Your task to perform on an android device: Open Chrome and go to the settings page Image 0: 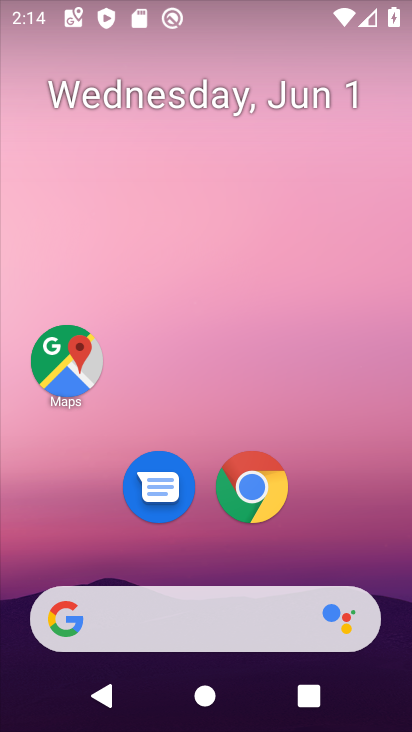
Step 0: drag from (363, 545) to (369, 135)
Your task to perform on an android device: Open Chrome and go to the settings page Image 1: 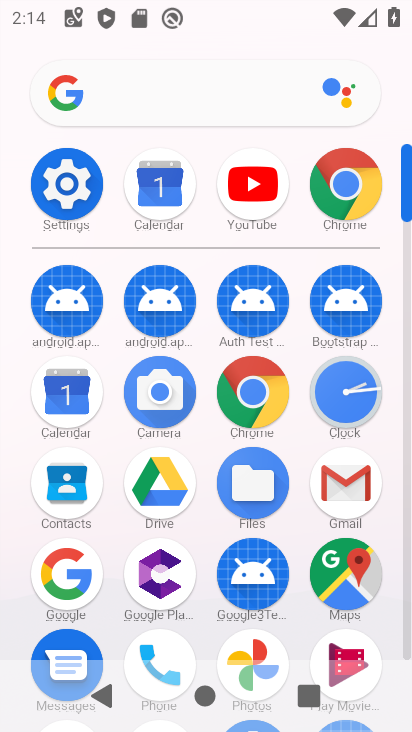
Step 1: click (265, 406)
Your task to perform on an android device: Open Chrome and go to the settings page Image 2: 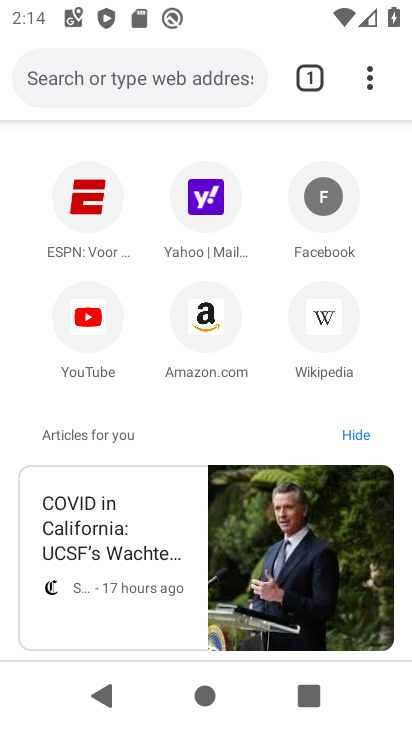
Step 2: click (370, 95)
Your task to perform on an android device: Open Chrome and go to the settings page Image 3: 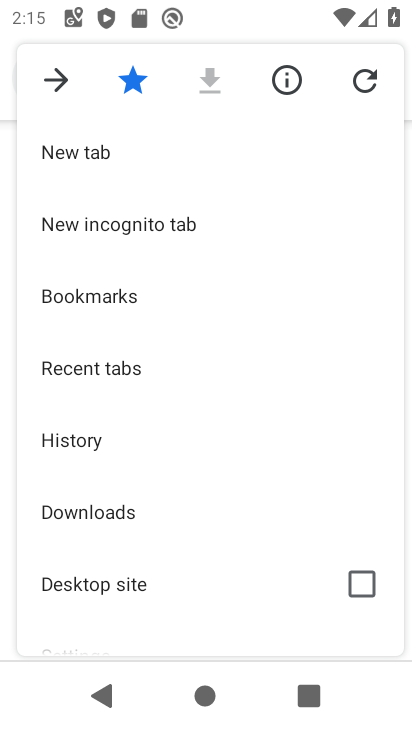
Step 3: drag from (275, 426) to (277, 300)
Your task to perform on an android device: Open Chrome and go to the settings page Image 4: 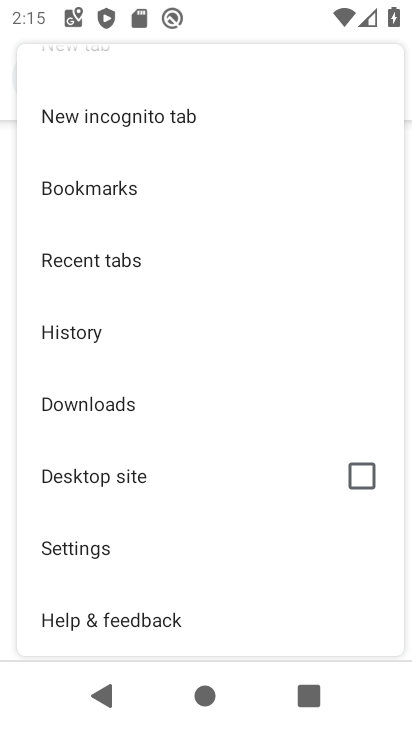
Step 4: drag from (247, 456) to (247, 342)
Your task to perform on an android device: Open Chrome and go to the settings page Image 5: 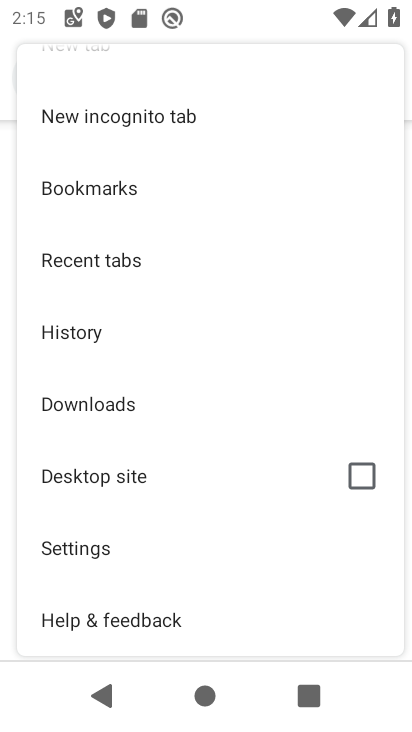
Step 5: click (99, 553)
Your task to perform on an android device: Open Chrome and go to the settings page Image 6: 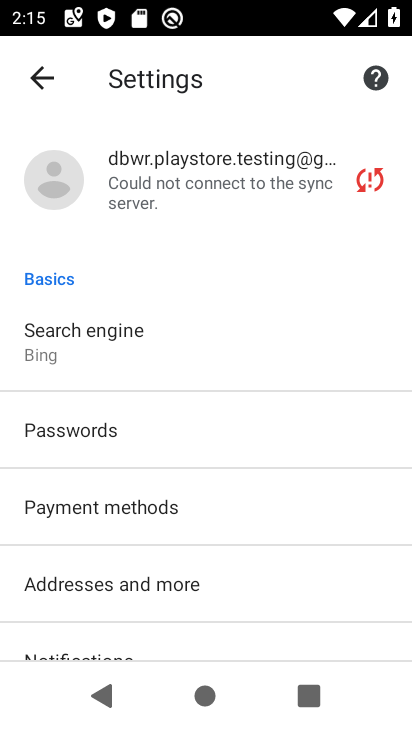
Step 6: task complete